Your task to perform on an android device: Open wifi settings Image 0: 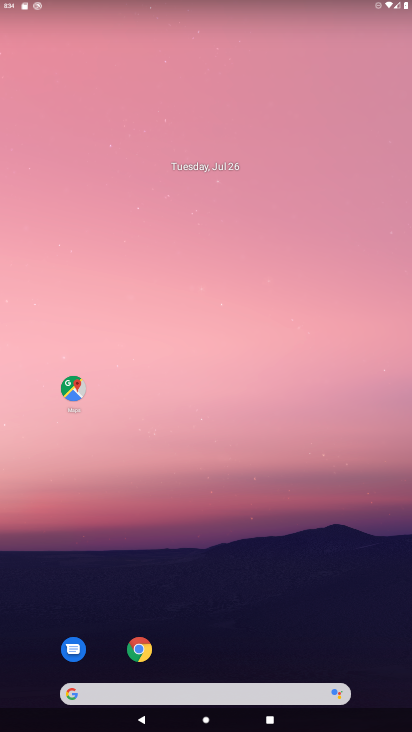
Step 0: drag from (211, 8) to (256, 517)
Your task to perform on an android device: Open wifi settings Image 1: 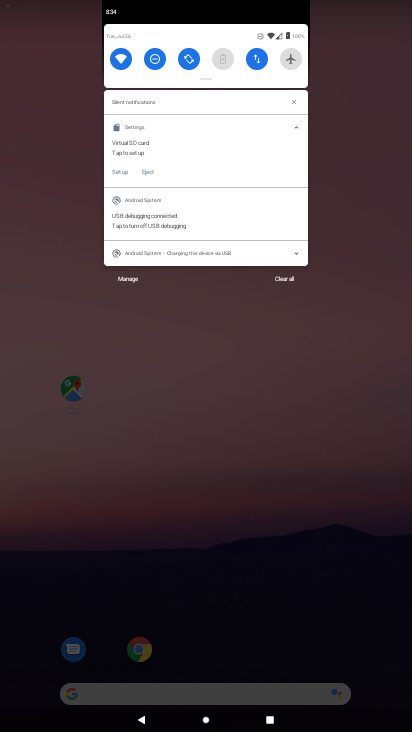
Step 1: click (111, 61)
Your task to perform on an android device: Open wifi settings Image 2: 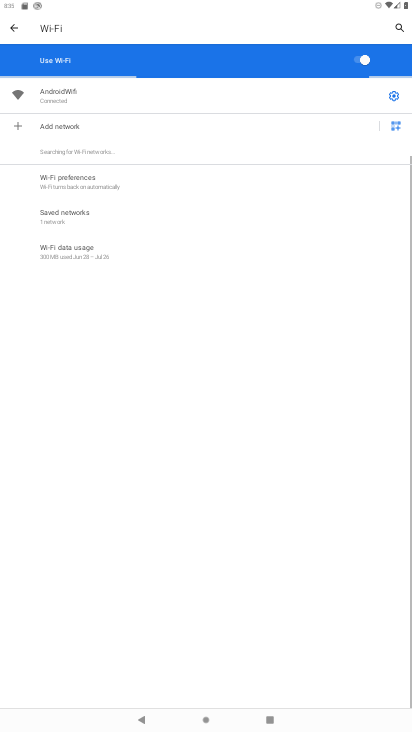
Step 2: task complete